Your task to perform on an android device: Find coffee shops on Maps Image 0: 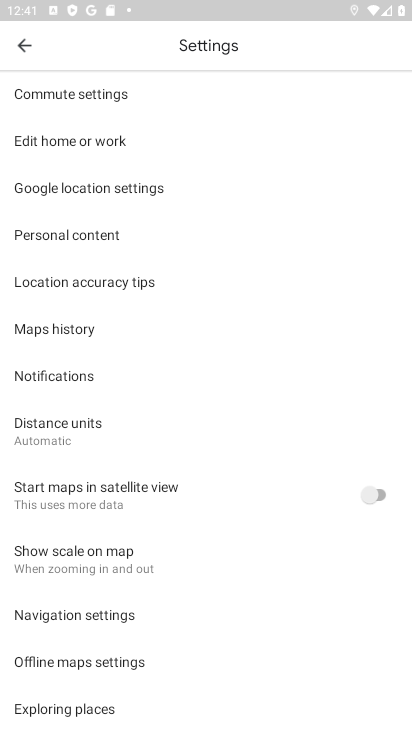
Step 0: press home button
Your task to perform on an android device: Find coffee shops on Maps Image 1: 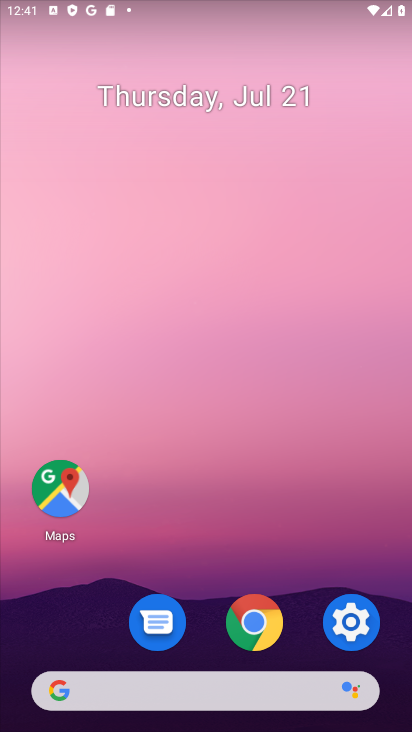
Step 1: click (72, 496)
Your task to perform on an android device: Find coffee shops on Maps Image 2: 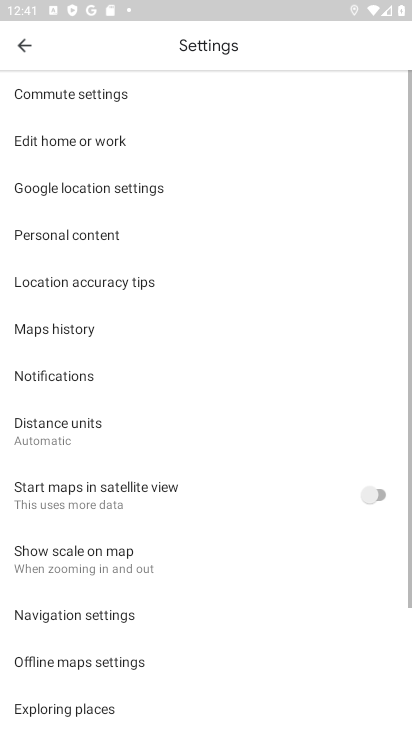
Step 2: click (22, 40)
Your task to perform on an android device: Find coffee shops on Maps Image 3: 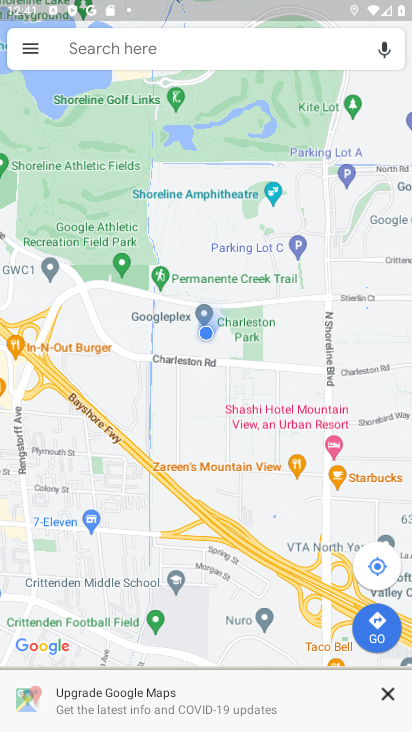
Step 3: click (126, 49)
Your task to perform on an android device: Find coffee shops on Maps Image 4: 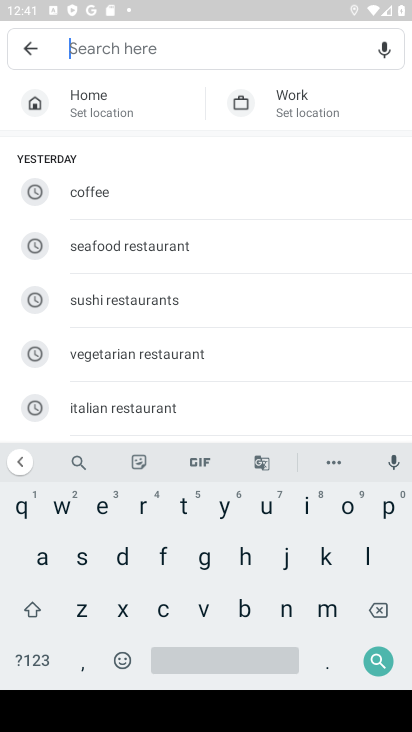
Step 4: click (110, 202)
Your task to perform on an android device: Find coffee shops on Maps Image 5: 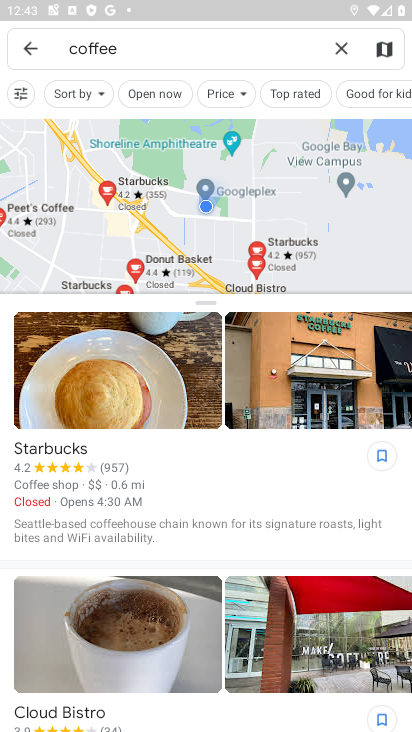
Step 5: task complete